Your task to perform on an android device: see tabs open on other devices in the chrome app Image 0: 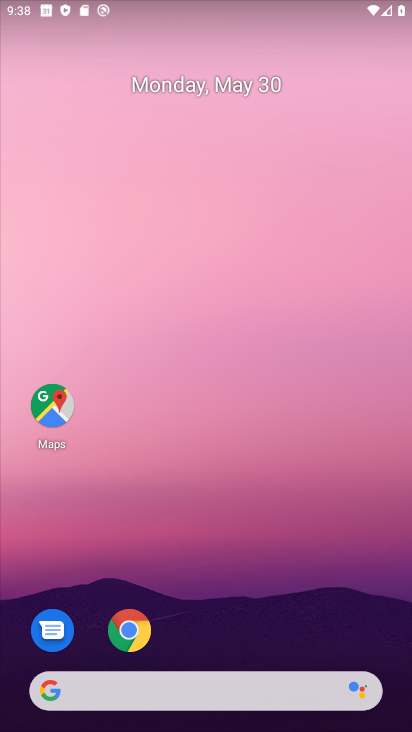
Step 0: click (131, 646)
Your task to perform on an android device: see tabs open on other devices in the chrome app Image 1: 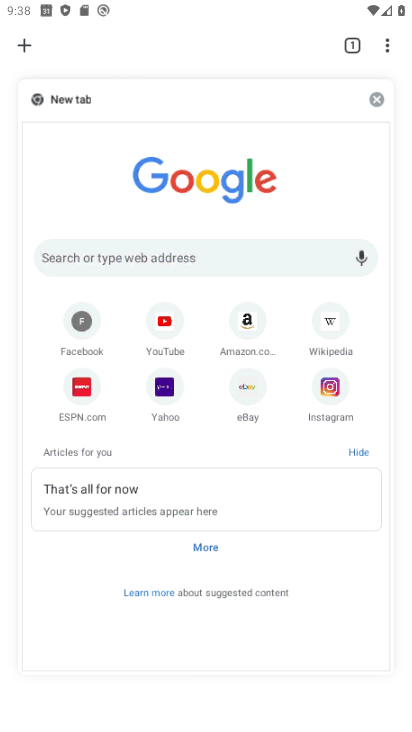
Step 1: click (375, 99)
Your task to perform on an android device: see tabs open on other devices in the chrome app Image 2: 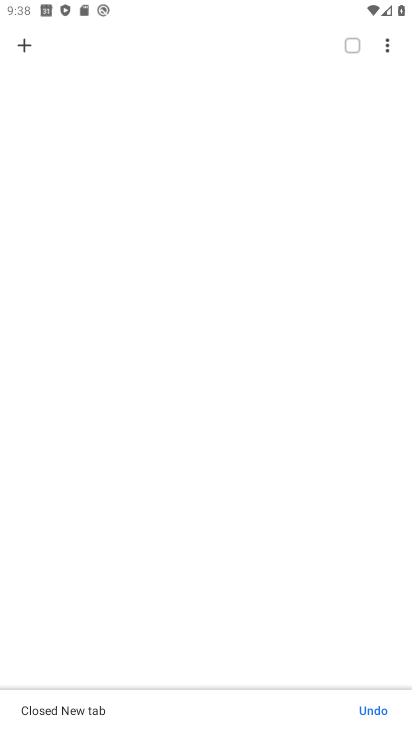
Step 2: click (21, 40)
Your task to perform on an android device: see tabs open on other devices in the chrome app Image 3: 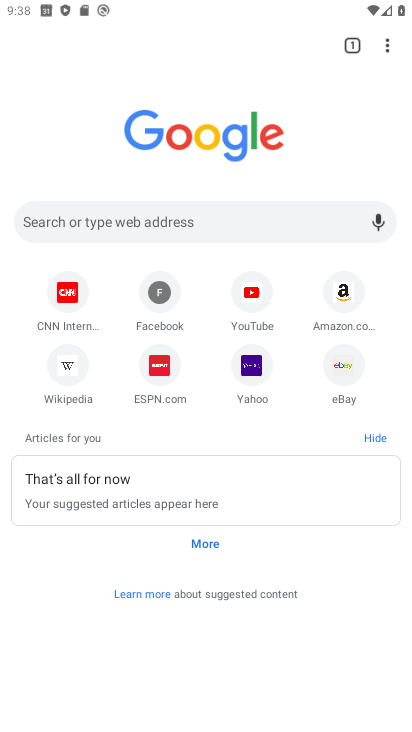
Step 3: task complete